Your task to perform on an android device: Search for "custom wallet" on Etsy. Image 0: 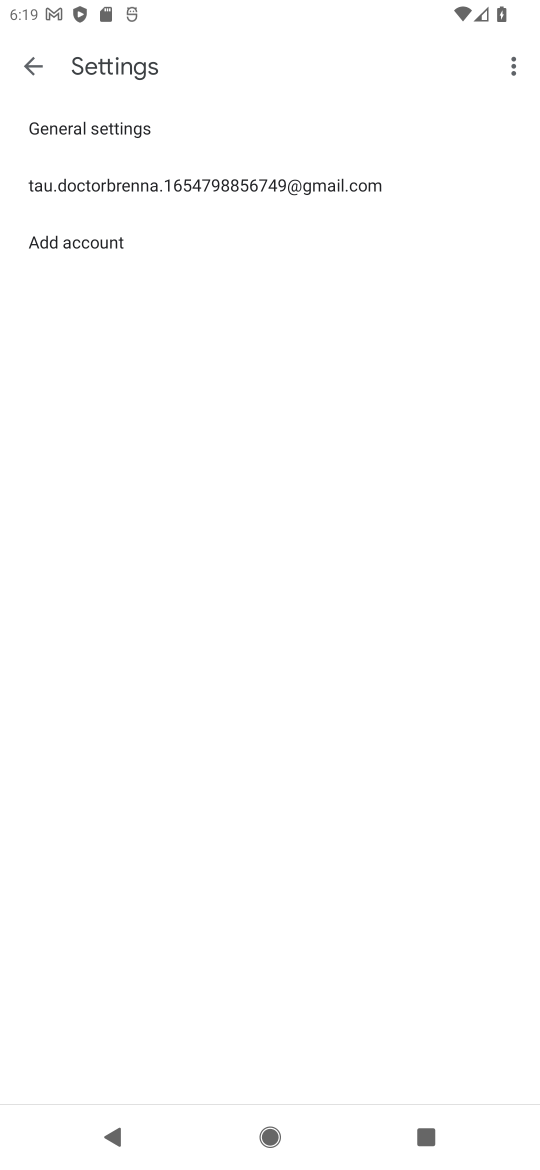
Step 0: press home button
Your task to perform on an android device: Search for "custom wallet" on Etsy. Image 1: 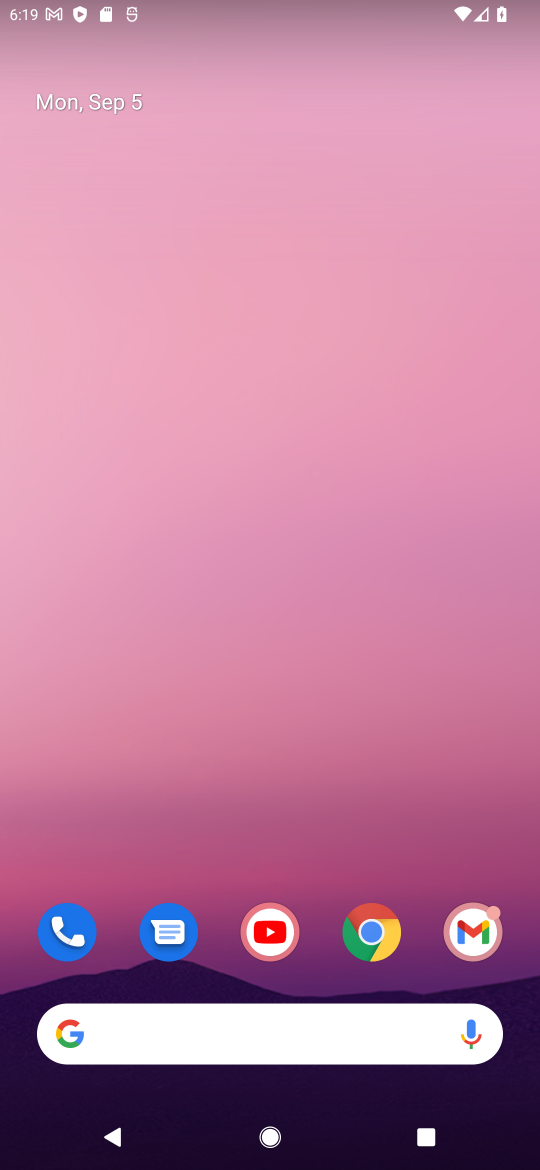
Step 1: drag from (281, 372) to (241, 75)
Your task to perform on an android device: Search for "custom wallet" on Etsy. Image 2: 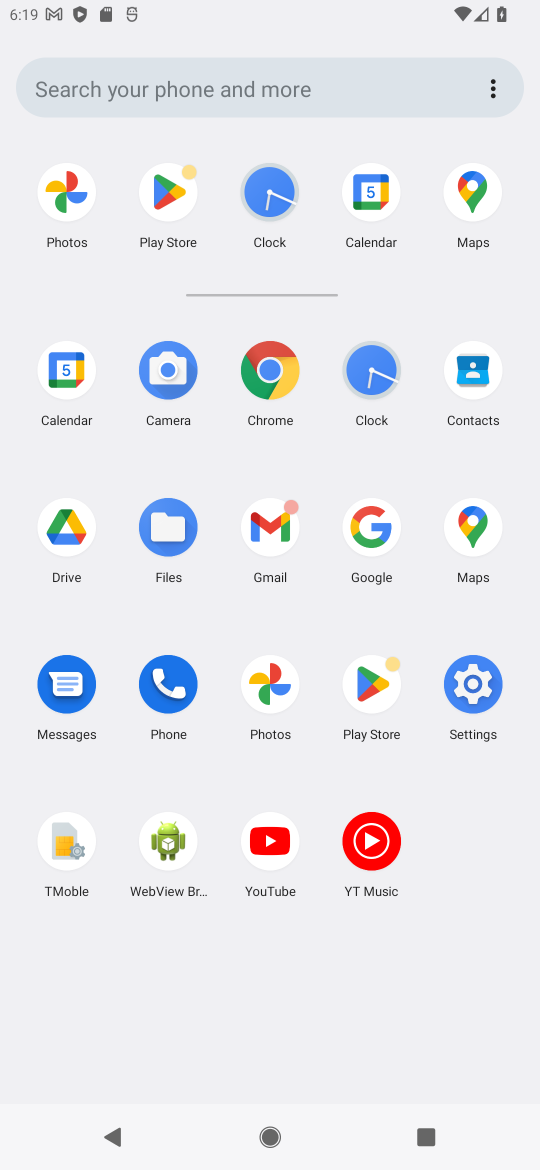
Step 2: click (373, 527)
Your task to perform on an android device: Search for "custom wallet" on Etsy. Image 3: 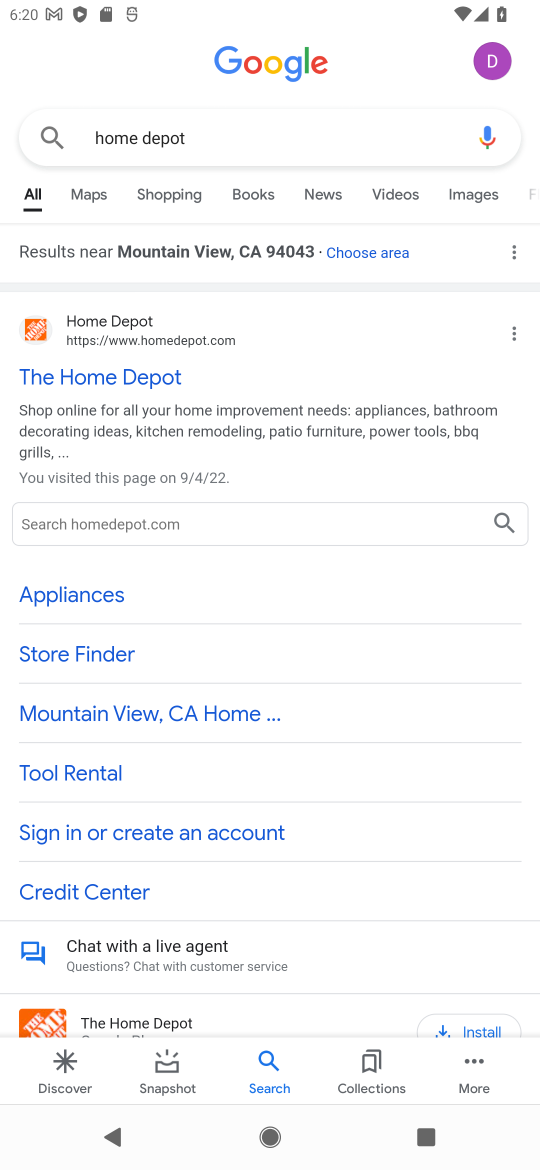
Step 3: click (341, 133)
Your task to perform on an android device: Search for "custom wallet" on Etsy. Image 4: 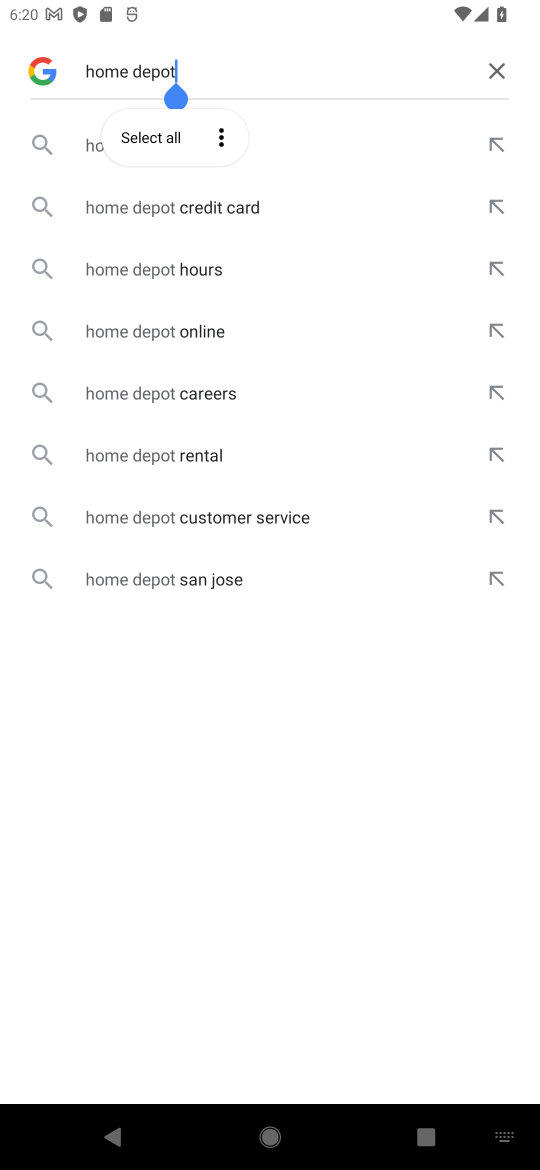
Step 4: click (494, 65)
Your task to perform on an android device: Search for "custom wallet" on Etsy. Image 5: 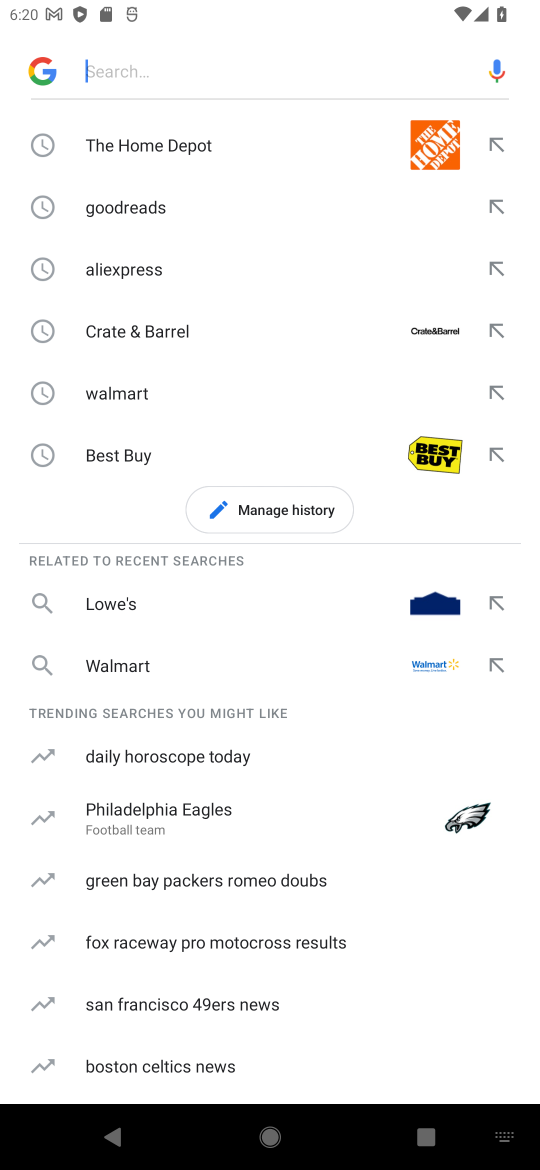
Step 5: type "Etsy"
Your task to perform on an android device: Search for "custom wallet" on Etsy. Image 6: 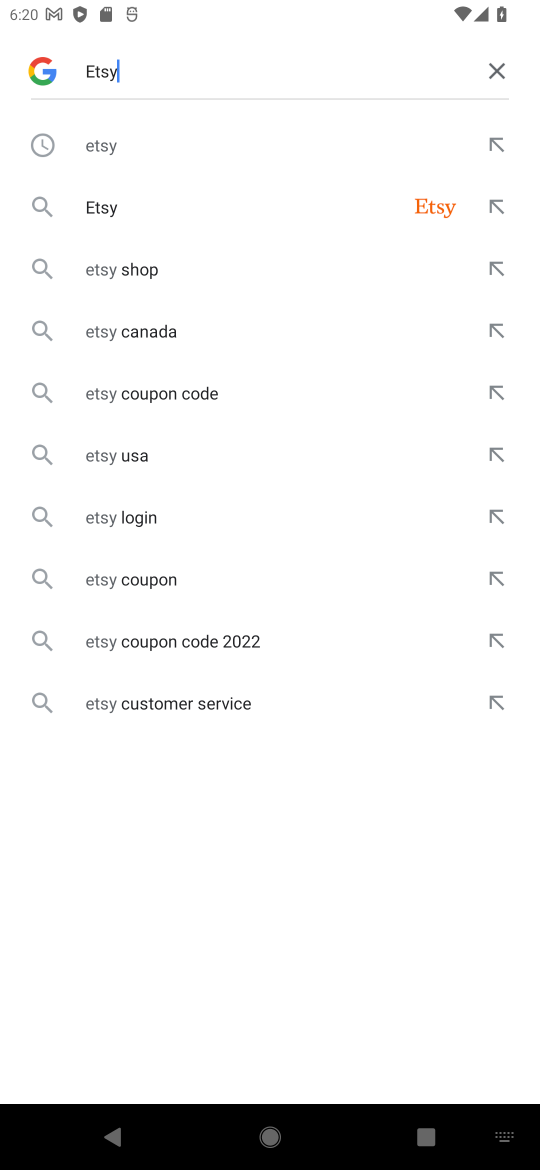
Step 6: click (103, 150)
Your task to perform on an android device: Search for "custom wallet" on Etsy. Image 7: 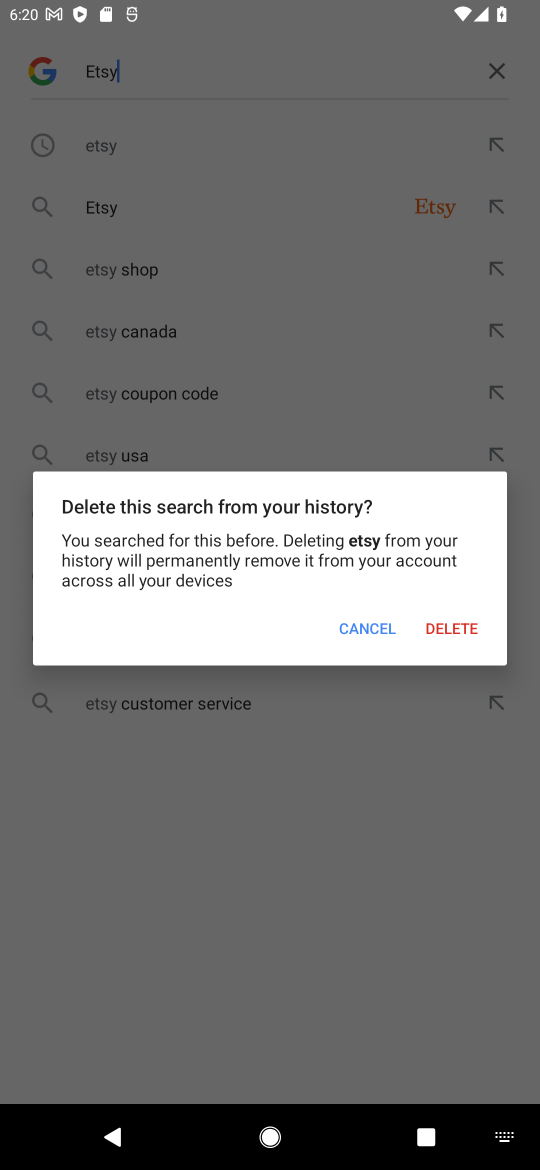
Step 7: click (382, 636)
Your task to perform on an android device: Search for "custom wallet" on Etsy. Image 8: 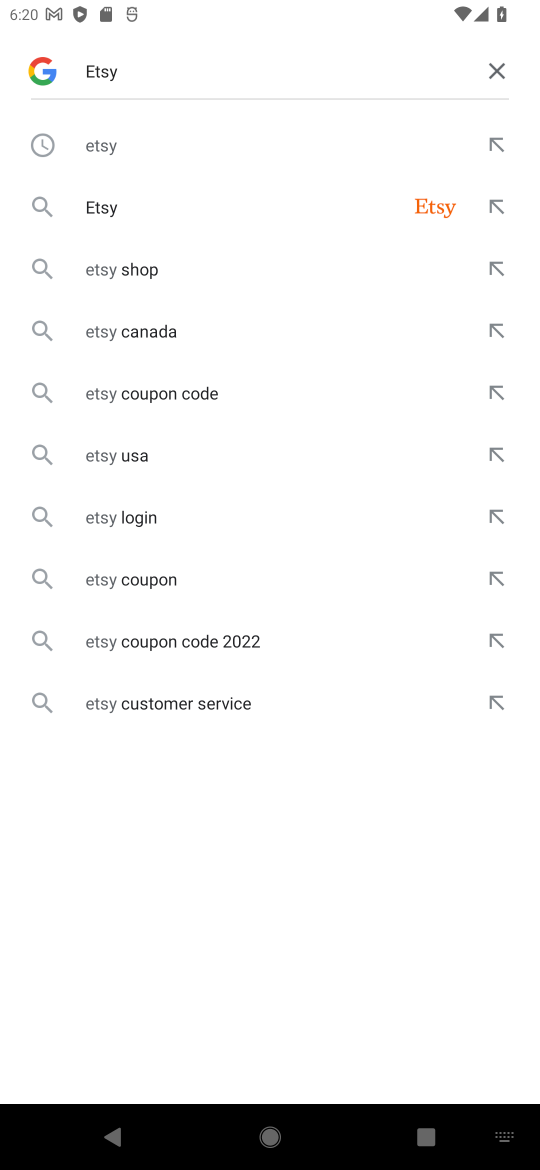
Step 8: click (97, 141)
Your task to perform on an android device: Search for "custom wallet" on Etsy. Image 9: 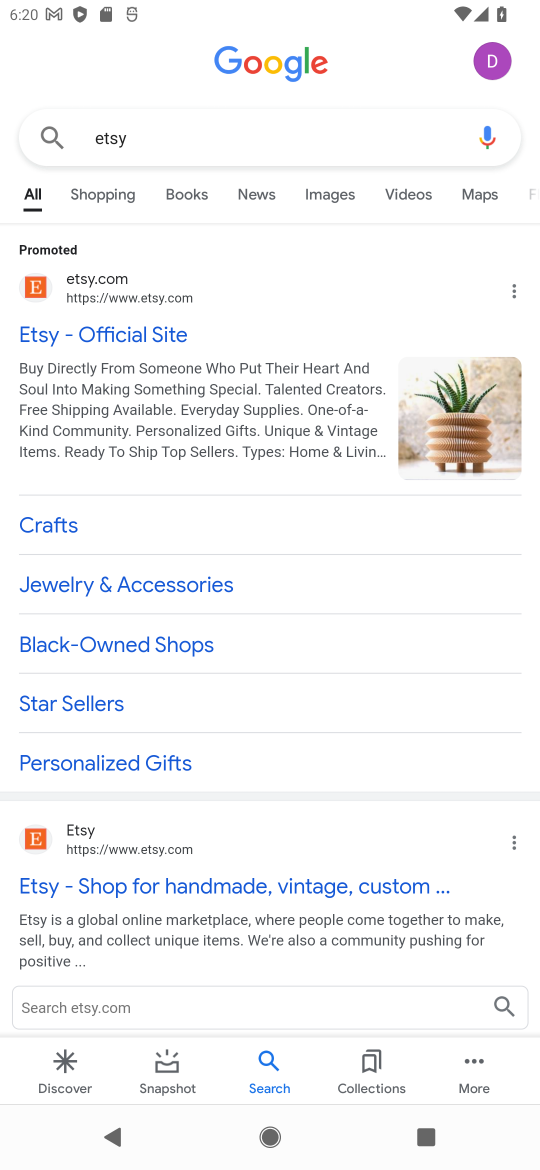
Step 9: click (136, 329)
Your task to perform on an android device: Search for "custom wallet" on Etsy. Image 10: 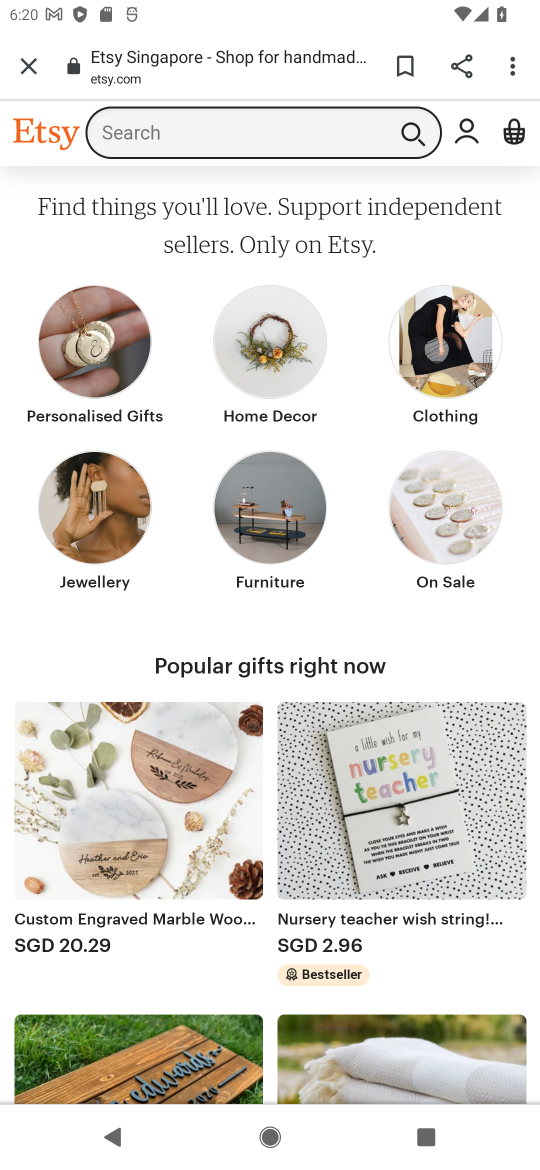
Step 10: click (242, 130)
Your task to perform on an android device: Search for "custom wallet" on Etsy. Image 11: 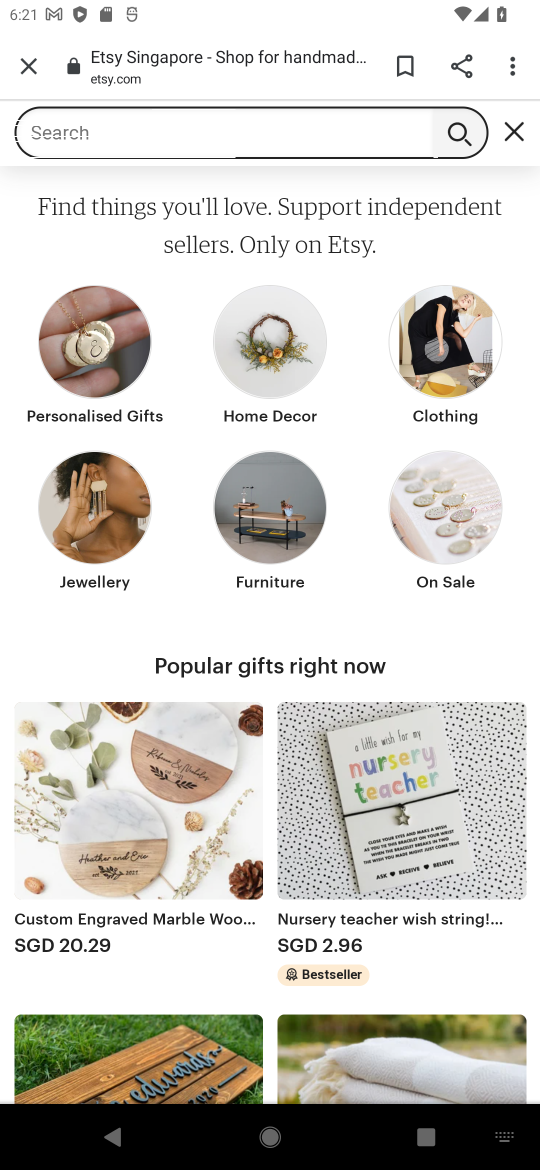
Step 11: click (133, 128)
Your task to perform on an android device: Search for "custom wallet" on Etsy. Image 12: 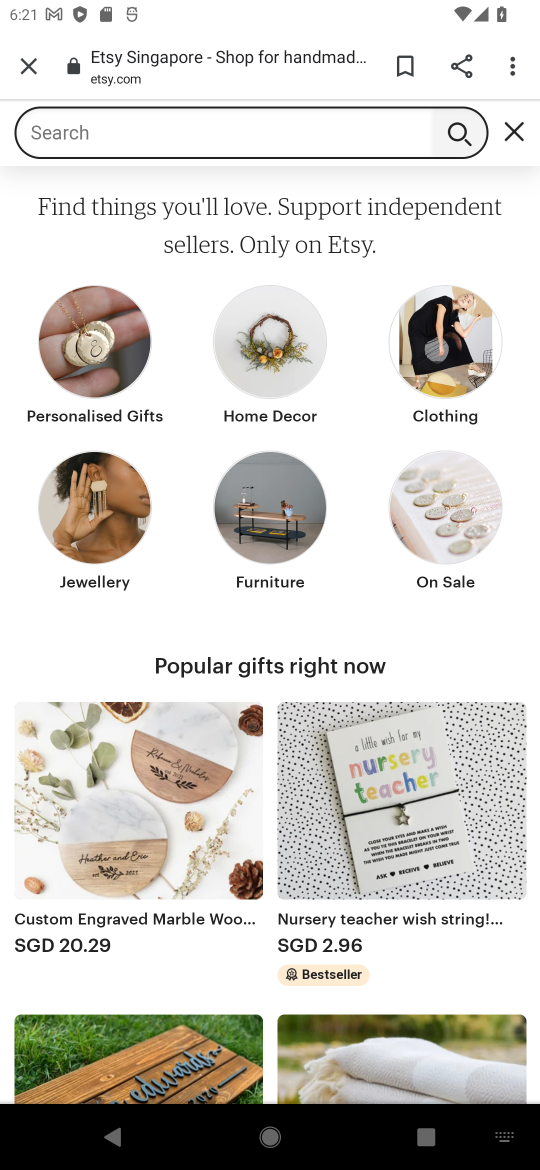
Step 12: type "custom wallet"
Your task to perform on an android device: Search for "custom wallet" on Etsy. Image 13: 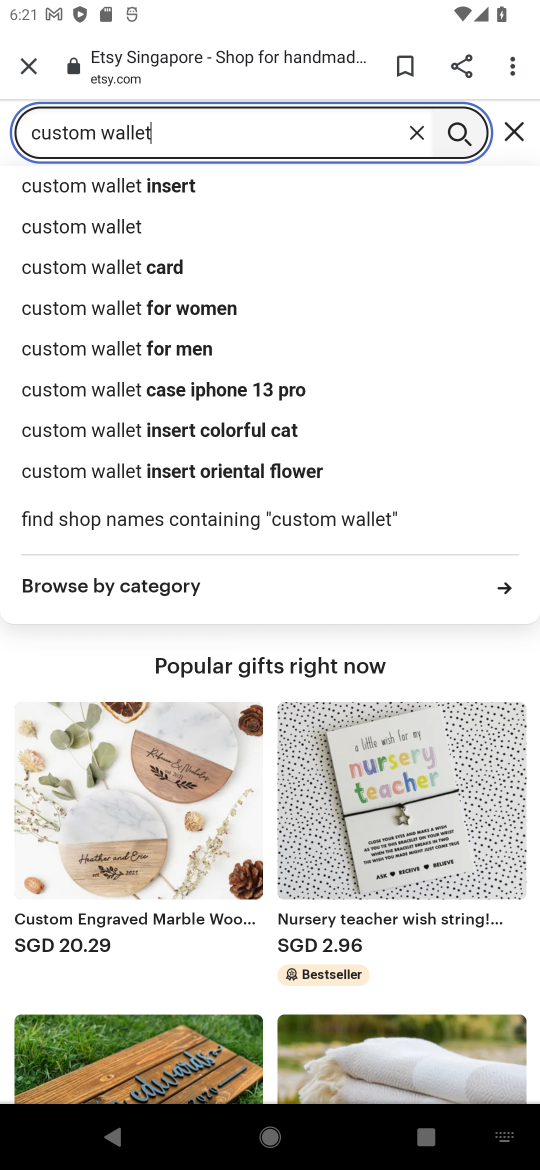
Step 13: click (101, 230)
Your task to perform on an android device: Search for "custom wallet" on Etsy. Image 14: 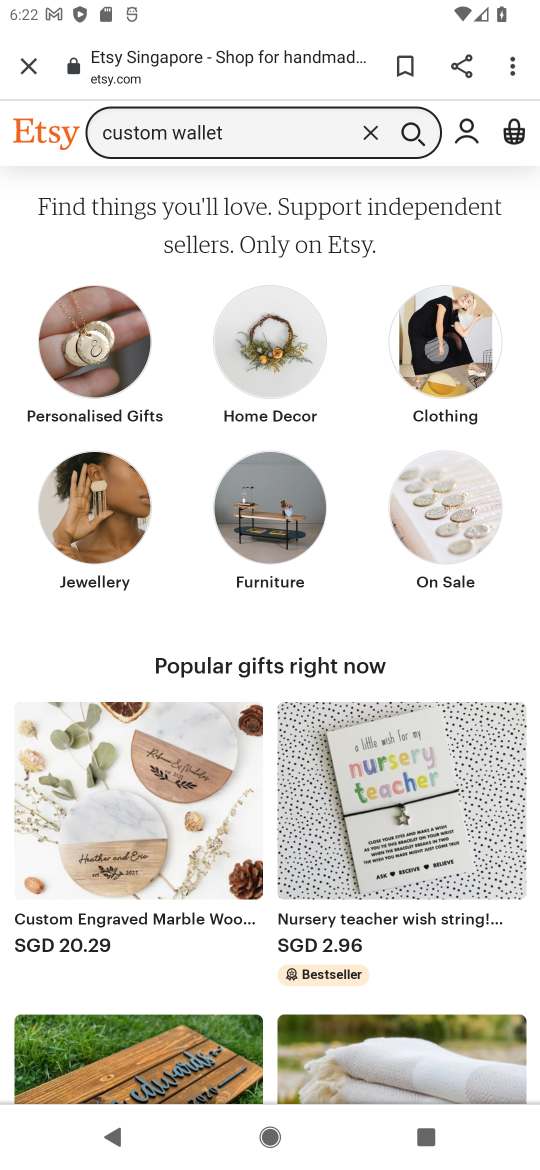
Step 14: click (410, 137)
Your task to perform on an android device: Search for "custom wallet" on Etsy. Image 15: 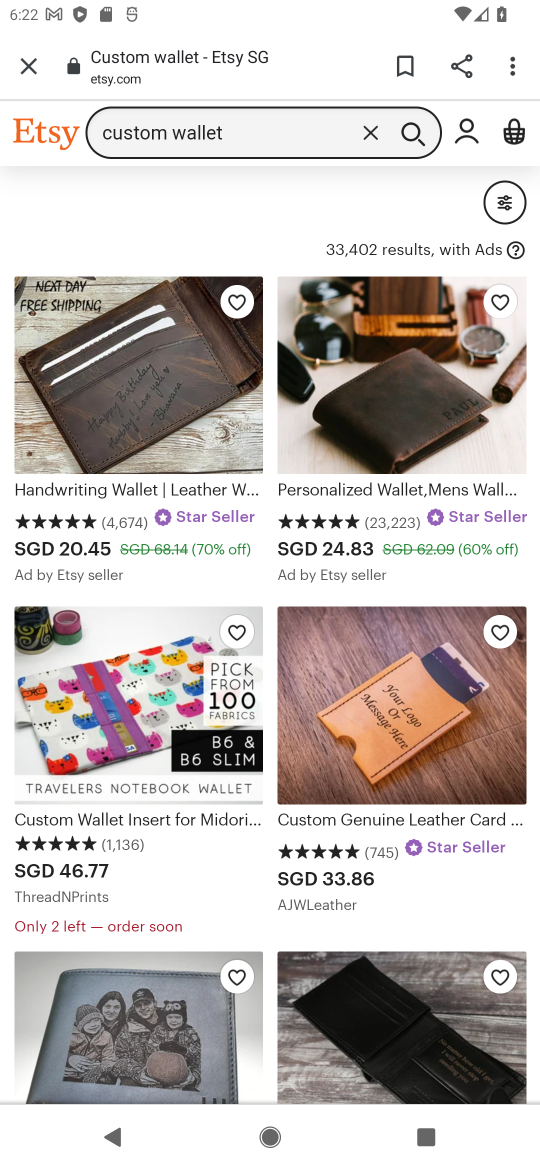
Step 15: task complete